Your task to perform on an android device: Open calendar and show me the fourth week of next month Image 0: 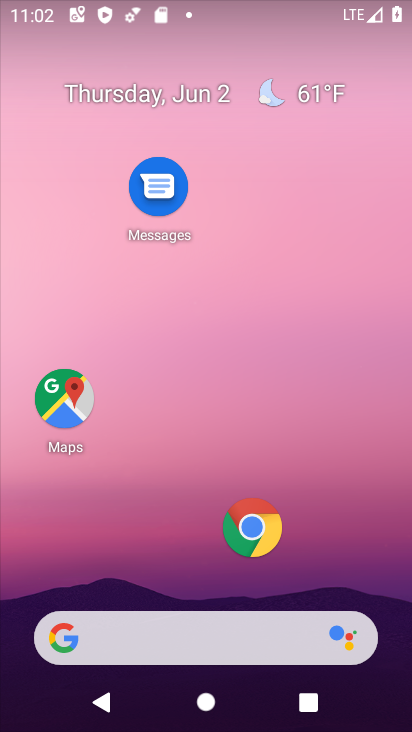
Step 0: press home button
Your task to perform on an android device: Open calendar and show me the fourth week of next month Image 1: 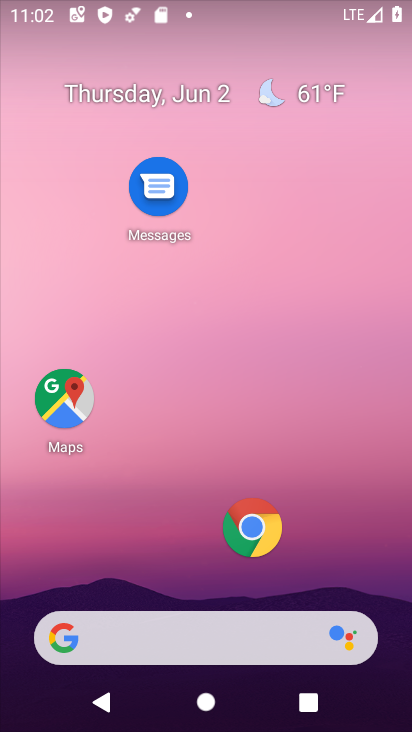
Step 1: drag from (321, 564) to (356, 203)
Your task to perform on an android device: Open calendar and show me the fourth week of next month Image 2: 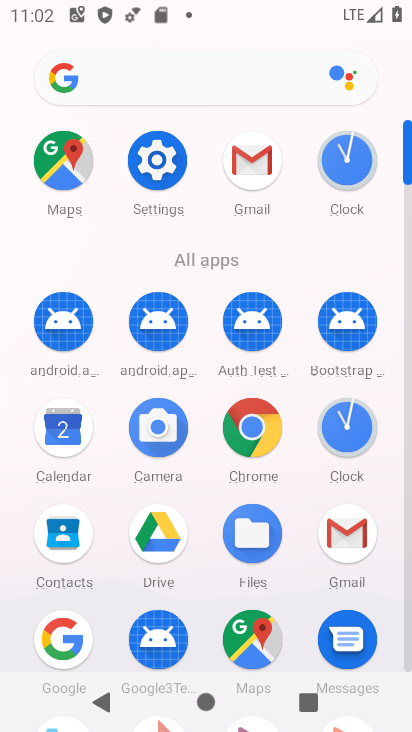
Step 2: click (60, 426)
Your task to perform on an android device: Open calendar and show me the fourth week of next month Image 3: 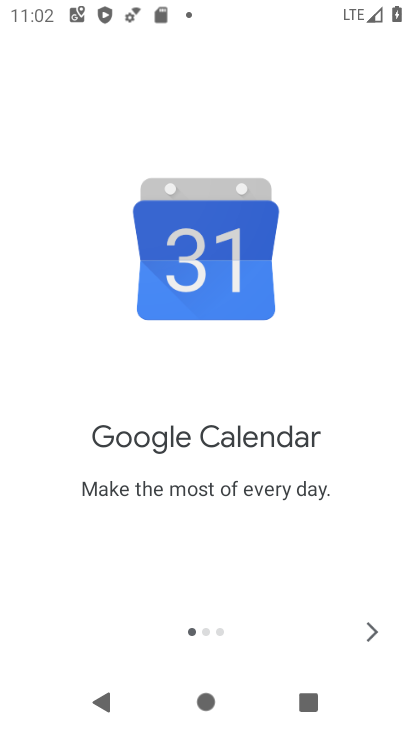
Step 3: click (370, 632)
Your task to perform on an android device: Open calendar and show me the fourth week of next month Image 4: 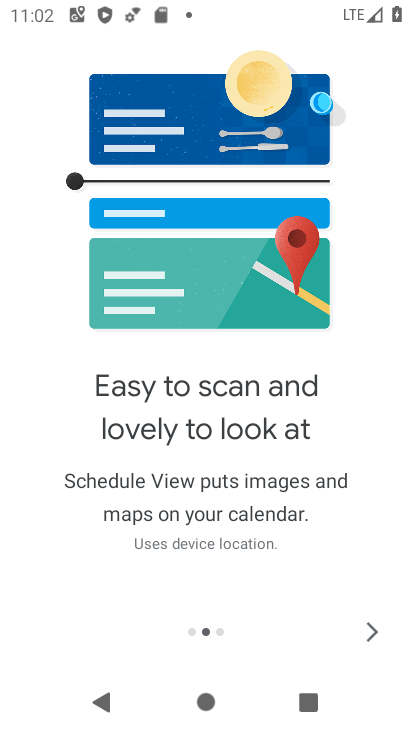
Step 4: click (375, 625)
Your task to perform on an android device: Open calendar and show me the fourth week of next month Image 5: 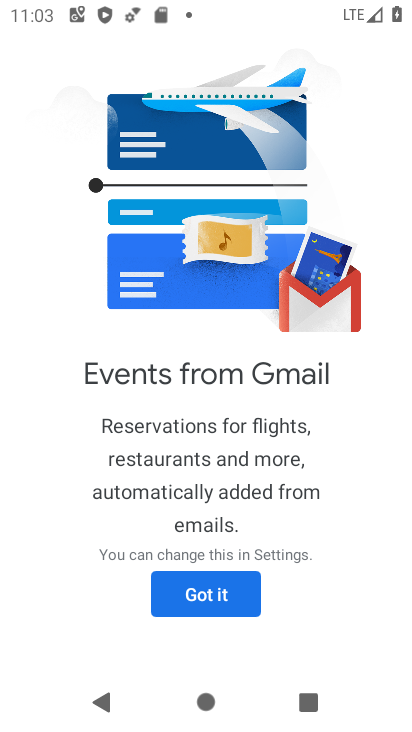
Step 5: click (214, 596)
Your task to perform on an android device: Open calendar and show me the fourth week of next month Image 6: 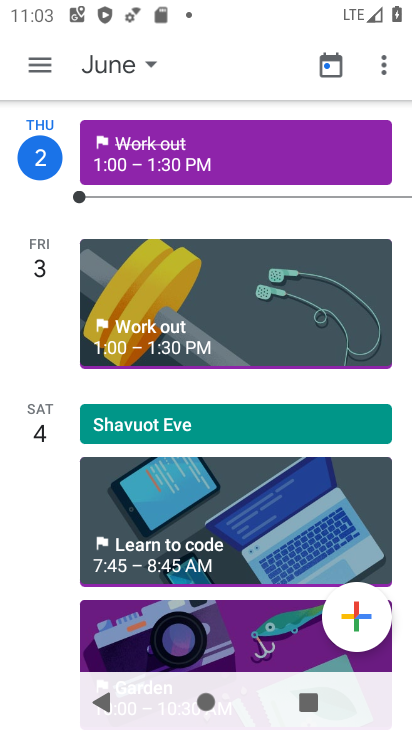
Step 6: click (152, 63)
Your task to perform on an android device: Open calendar and show me the fourth week of next month Image 7: 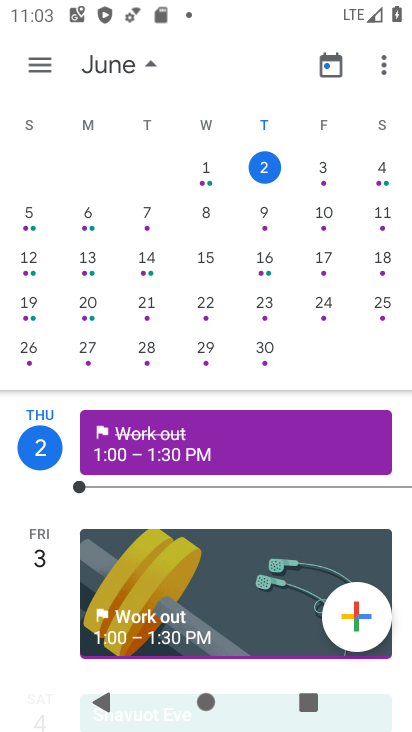
Step 7: drag from (378, 232) to (2, 225)
Your task to perform on an android device: Open calendar and show me the fourth week of next month Image 8: 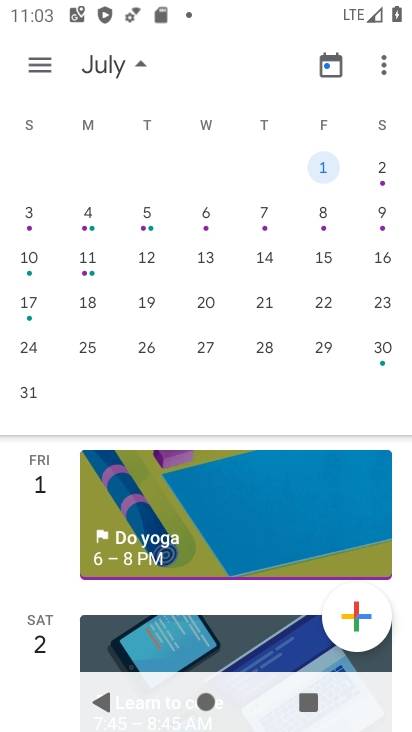
Step 8: click (26, 344)
Your task to perform on an android device: Open calendar and show me the fourth week of next month Image 9: 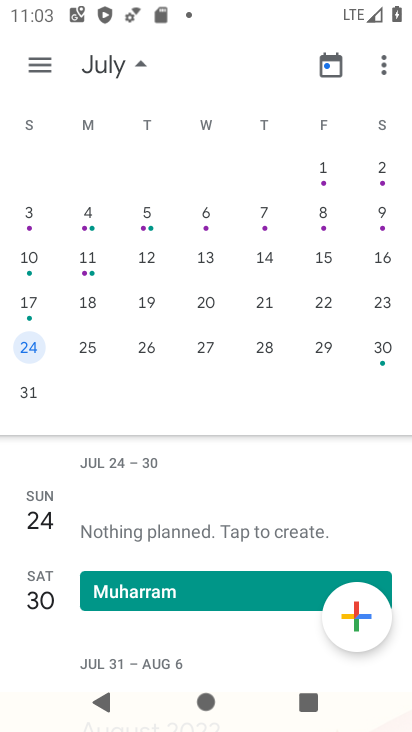
Step 9: click (141, 59)
Your task to perform on an android device: Open calendar and show me the fourth week of next month Image 10: 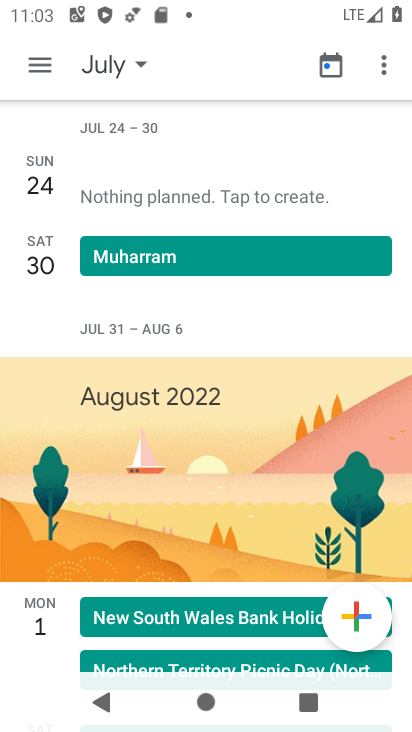
Step 10: task complete